Your task to perform on an android device: Search for vegetarian restaurants on Maps Image 0: 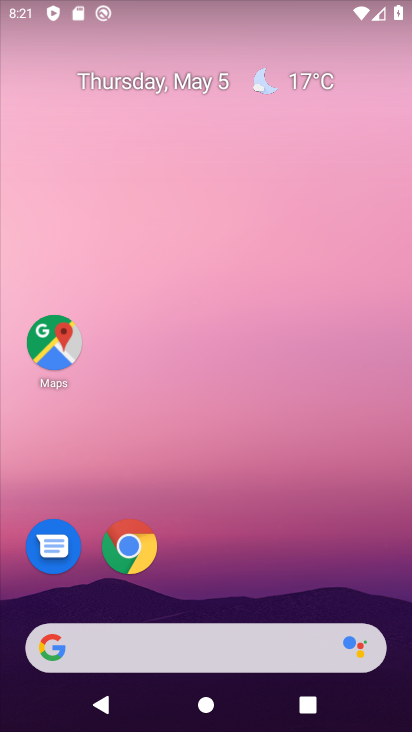
Step 0: drag from (204, 646) to (335, 162)
Your task to perform on an android device: Search for vegetarian restaurants on Maps Image 1: 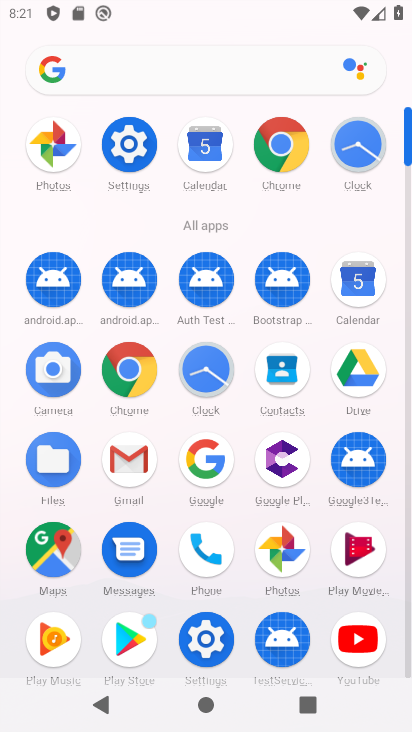
Step 1: click (49, 559)
Your task to perform on an android device: Search for vegetarian restaurants on Maps Image 2: 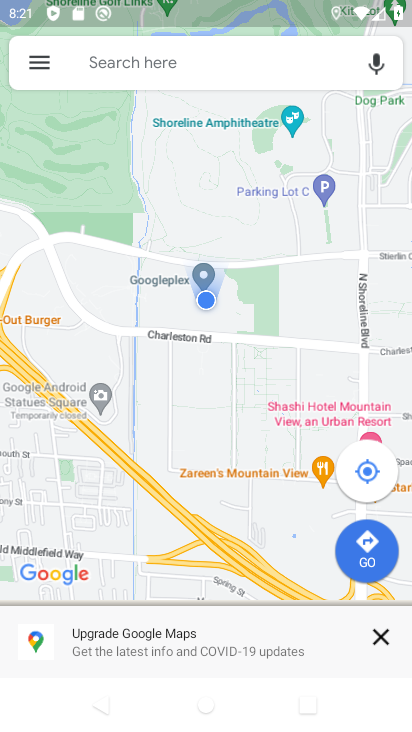
Step 2: click (151, 57)
Your task to perform on an android device: Search for vegetarian restaurants on Maps Image 3: 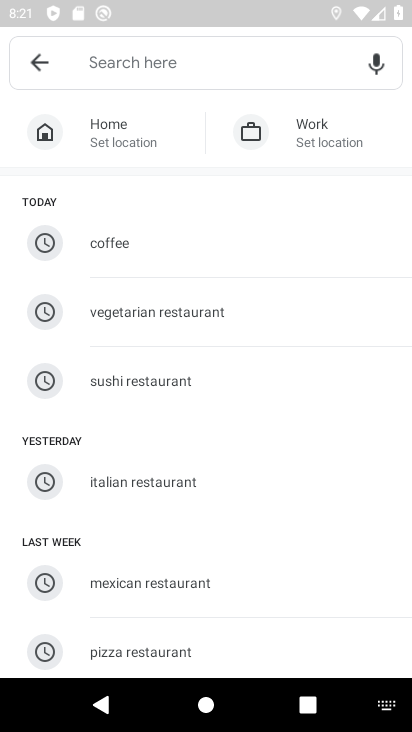
Step 3: click (165, 313)
Your task to perform on an android device: Search for vegetarian restaurants on Maps Image 4: 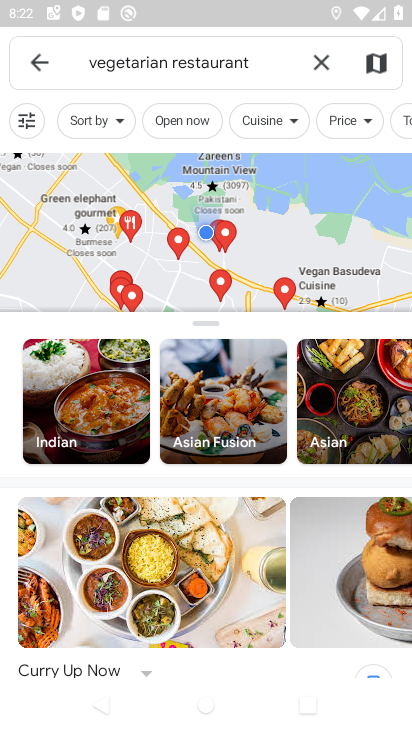
Step 4: task complete